Your task to perform on an android device: Go to CNN.com Image 0: 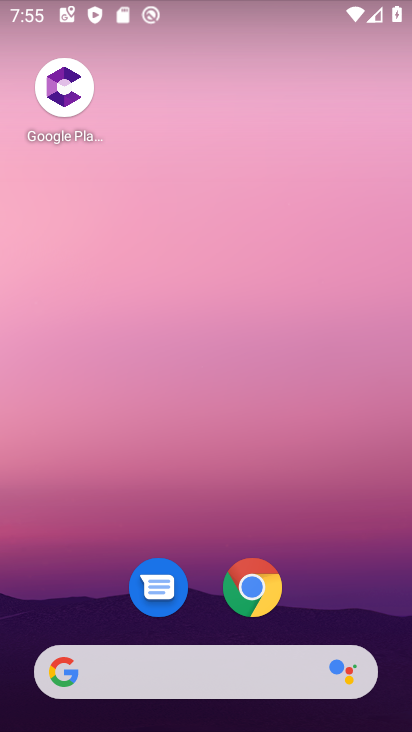
Step 0: click (230, 575)
Your task to perform on an android device: Go to CNN.com Image 1: 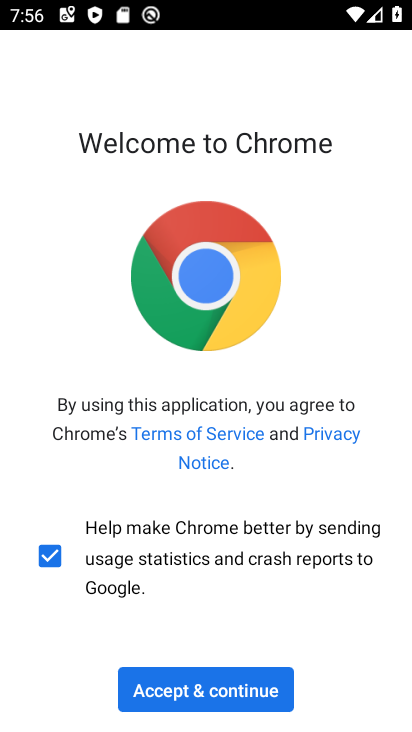
Step 1: click (200, 695)
Your task to perform on an android device: Go to CNN.com Image 2: 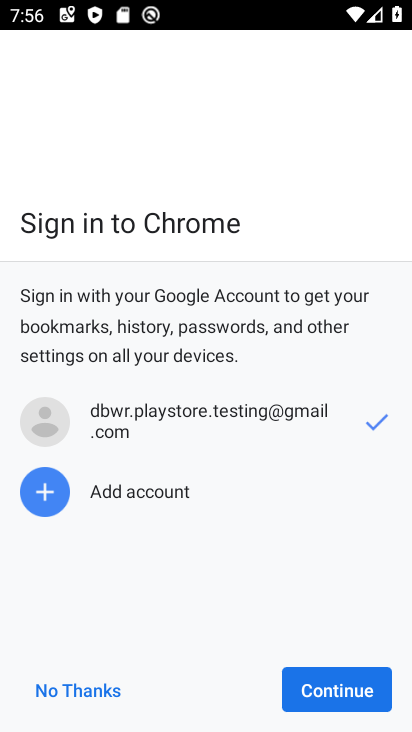
Step 2: click (313, 667)
Your task to perform on an android device: Go to CNN.com Image 3: 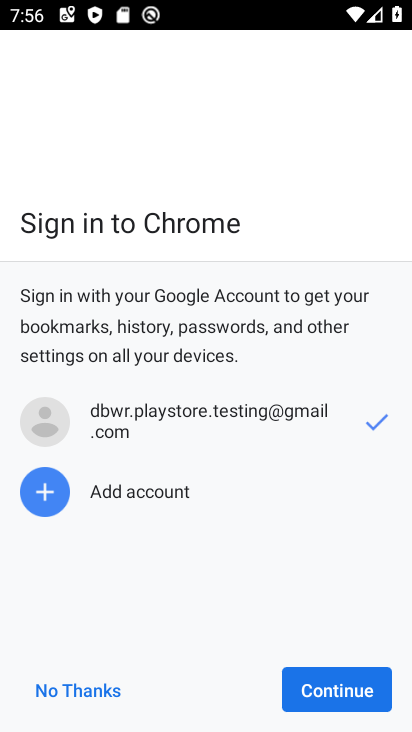
Step 3: click (358, 669)
Your task to perform on an android device: Go to CNN.com Image 4: 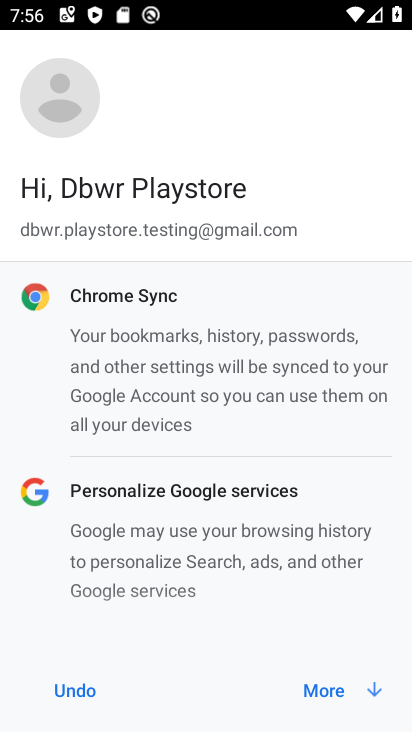
Step 4: click (358, 669)
Your task to perform on an android device: Go to CNN.com Image 5: 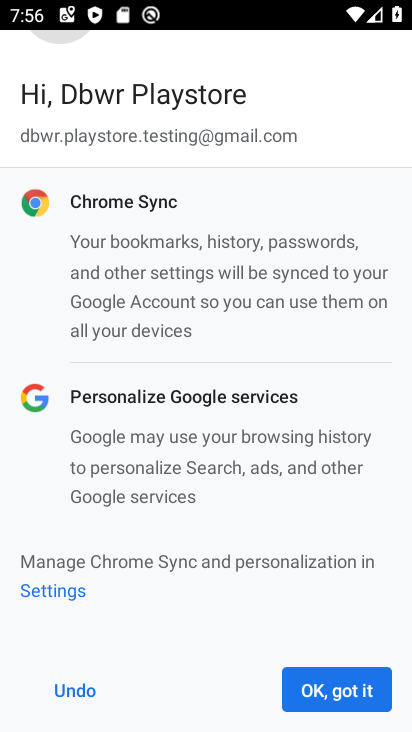
Step 5: click (358, 669)
Your task to perform on an android device: Go to CNN.com Image 6: 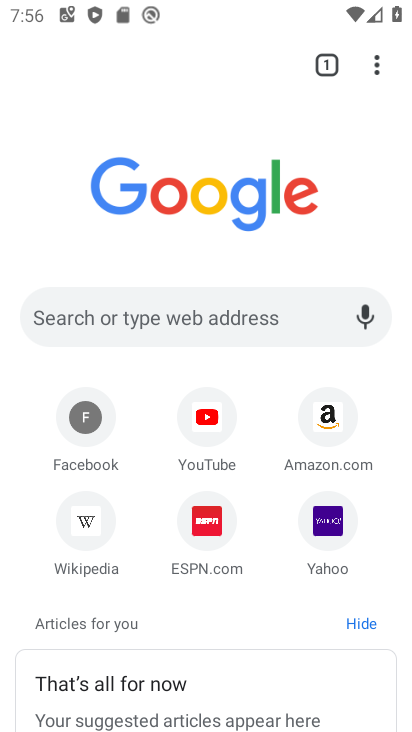
Step 6: click (107, 330)
Your task to perform on an android device: Go to CNN.com Image 7: 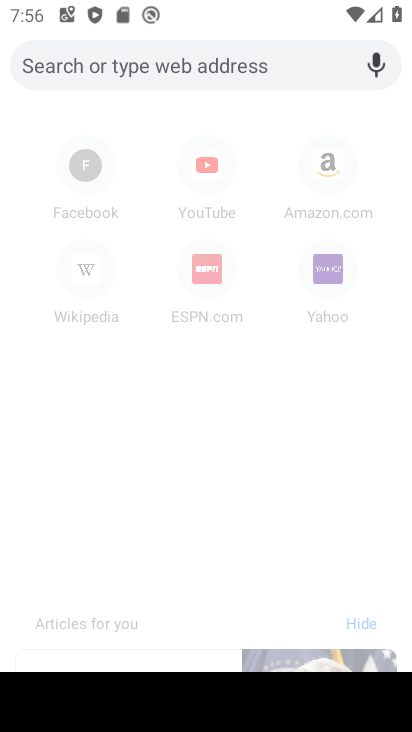
Step 7: type "CNN.com"
Your task to perform on an android device: Go to CNN.com Image 8: 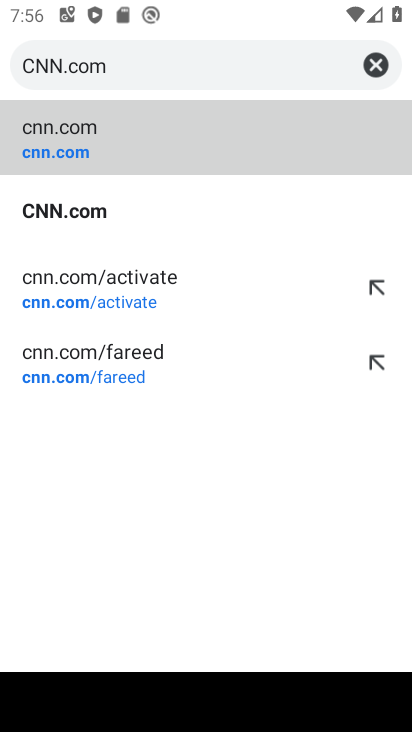
Step 8: click (139, 160)
Your task to perform on an android device: Go to CNN.com Image 9: 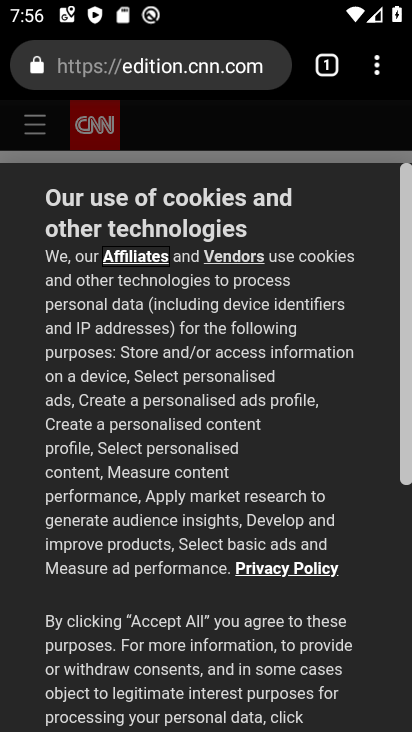
Step 9: task complete